Your task to perform on an android device: turn notification dots off Image 0: 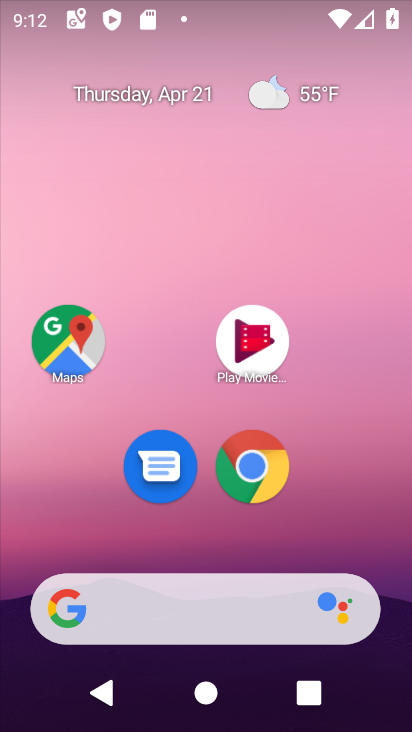
Step 0: drag from (302, 393) to (321, 85)
Your task to perform on an android device: turn notification dots off Image 1: 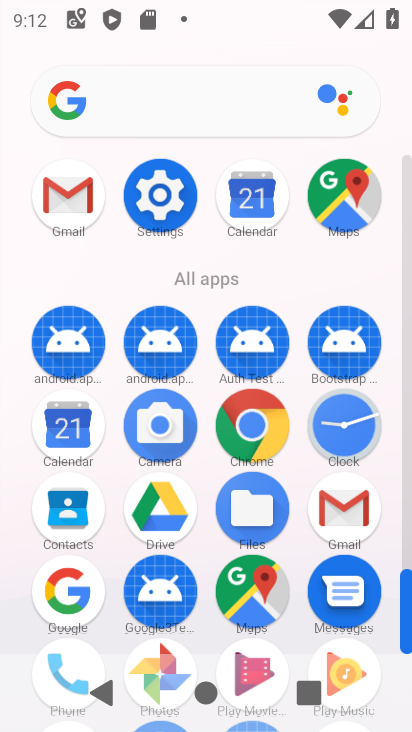
Step 1: click (140, 218)
Your task to perform on an android device: turn notification dots off Image 2: 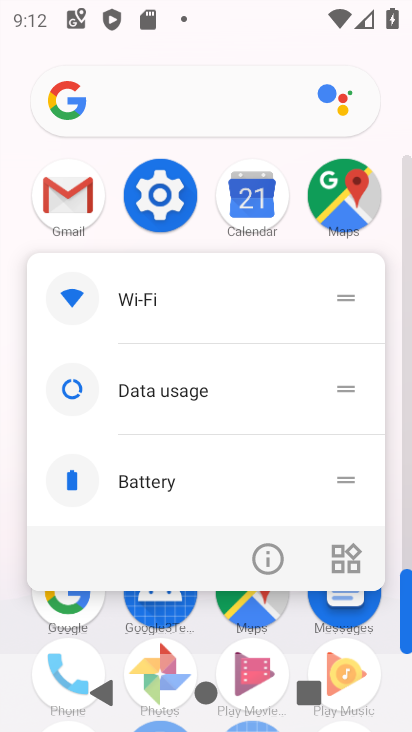
Step 2: click (167, 195)
Your task to perform on an android device: turn notification dots off Image 3: 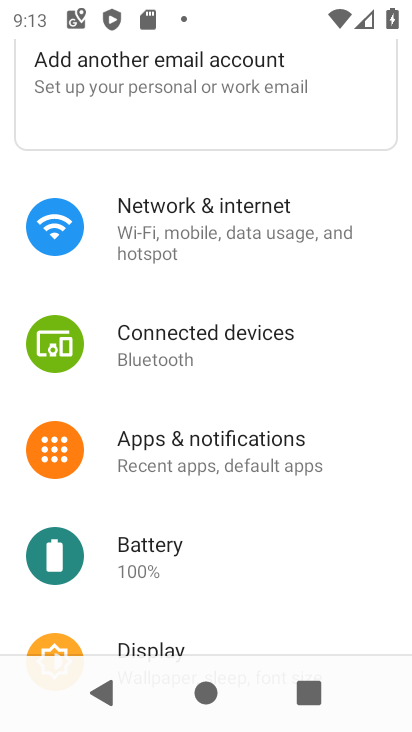
Step 3: click (273, 458)
Your task to perform on an android device: turn notification dots off Image 4: 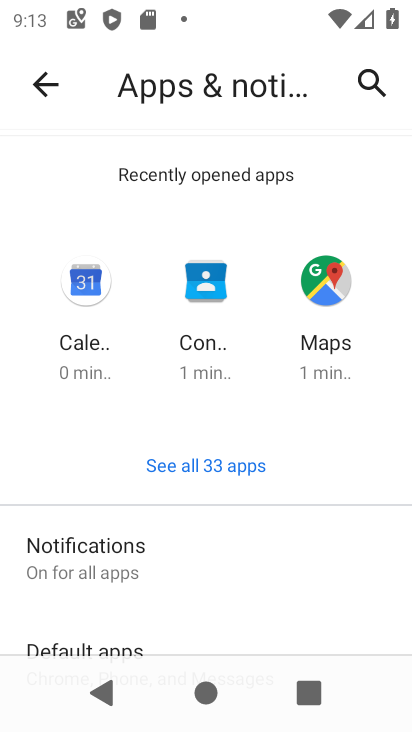
Step 4: drag from (186, 555) to (208, 172)
Your task to perform on an android device: turn notification dots off Image 5: 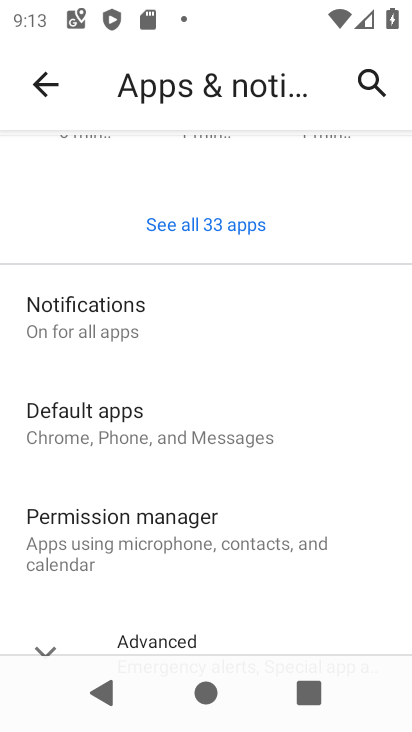
Step 5: drag from (176, 599) to (208, 296)
Your task to perform on an android device: turn notification dots off Image 6: 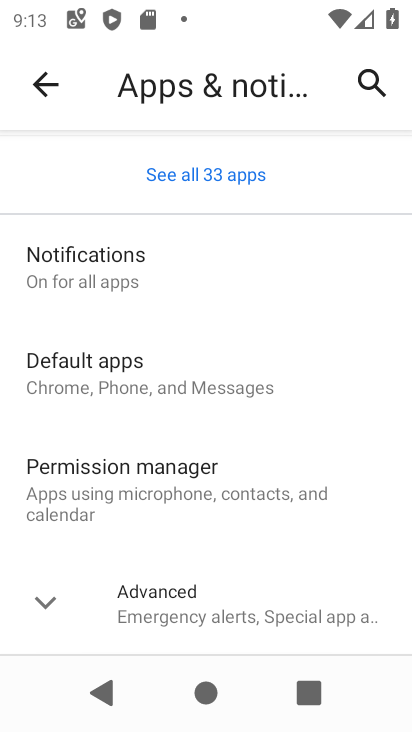
Step 6: click (51, 605)
Your task to perform on an android device: turn notification dots off Image 7: 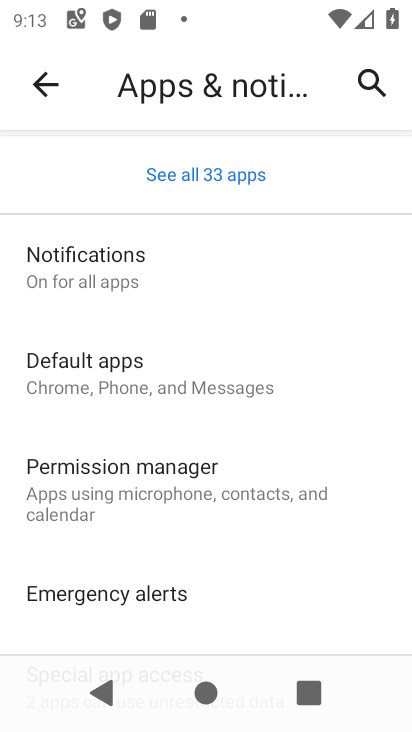
Step 7: drag from (259, 585) to (255, 377)
Your task to perform on an android device: turn notification dots off Image 8: 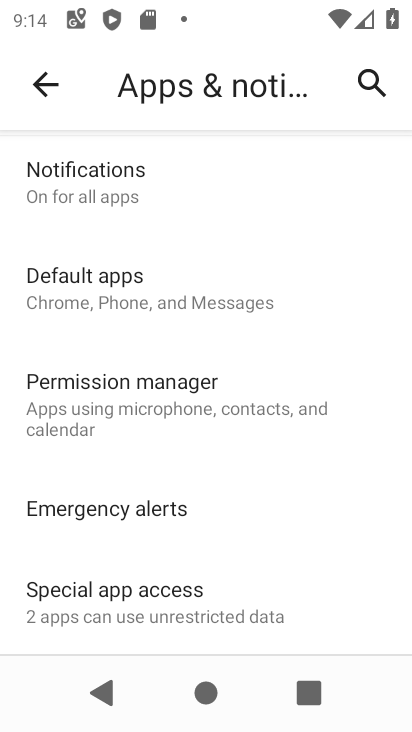
Step 8: click (210, 589)
Your task to perform on an android device: turn notification dots off Image 9: 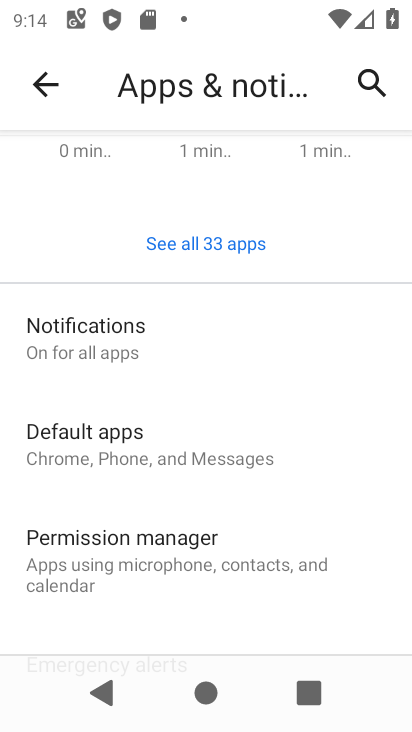
Step 9: click (41, 338)
Your task to perform on an android device: turn notification dots off Image 10: 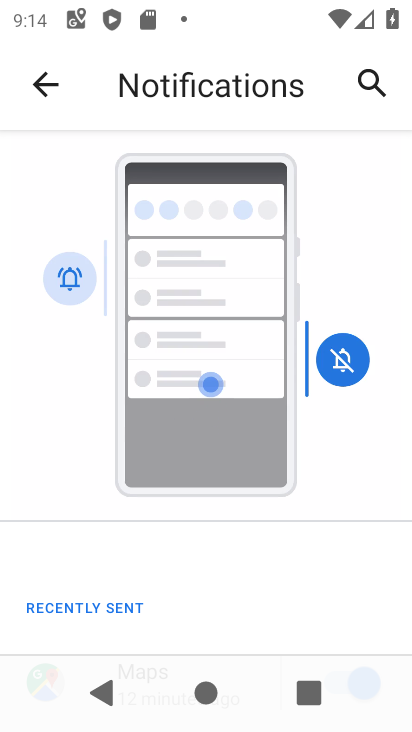
Step 10: drag from (274, 548) to (330, 142)
Your task to perform on an android device: turn notification dots off Image 11: 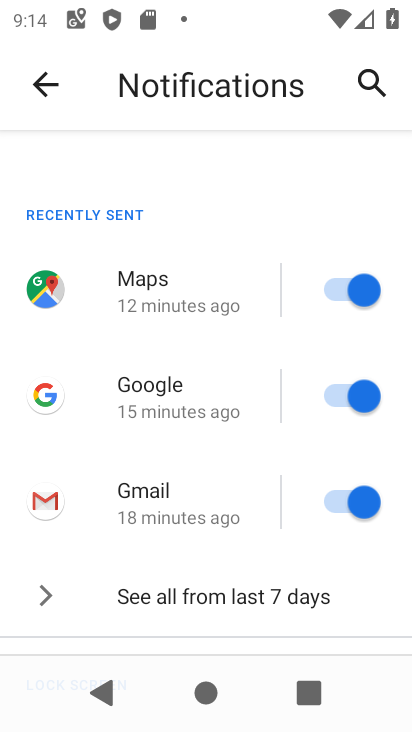
Step 11: drag from (214, 605) to (256, 169)
Your task to perform on an android device: turn notification dots off Image 12: 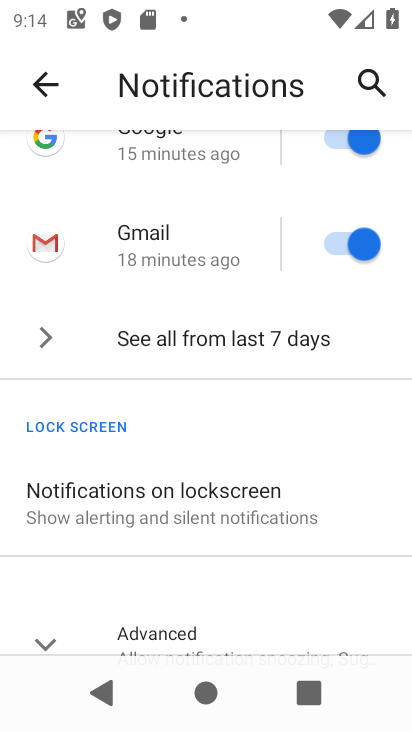
Step 12: drag from (219, 580) to (263, 158)
Your task to perform on an android device: turn notification dots off Image 13: 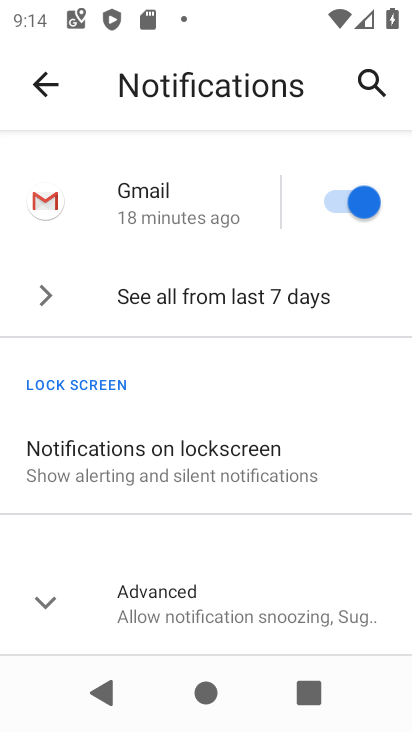
Step 13: click (42, 598)
Your task to perform on an android device: turn notification dots off Image 14: 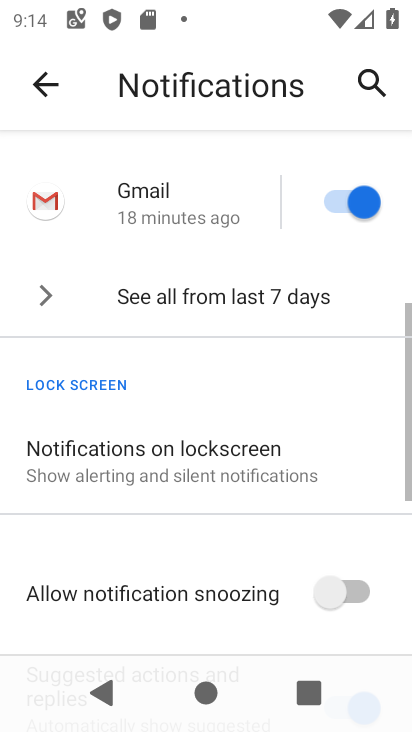
Step 14: task complete